Your task to perform on an android device: Search for pizza restaurants on Maps Image 0: 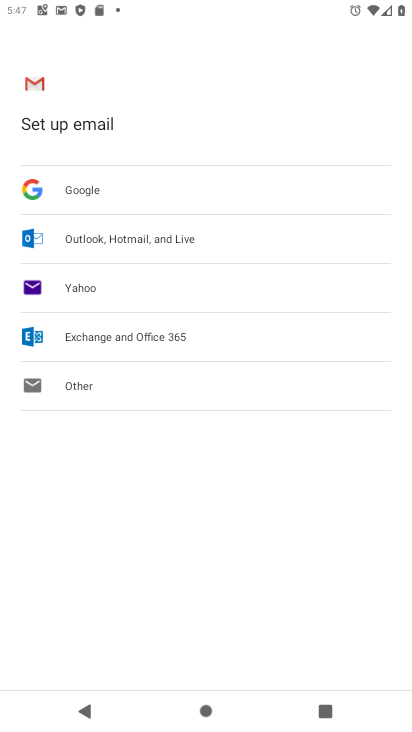
Step 0: press home button
Your task to perform on an android device: Search for pizza restaurants on Maps Image 1: 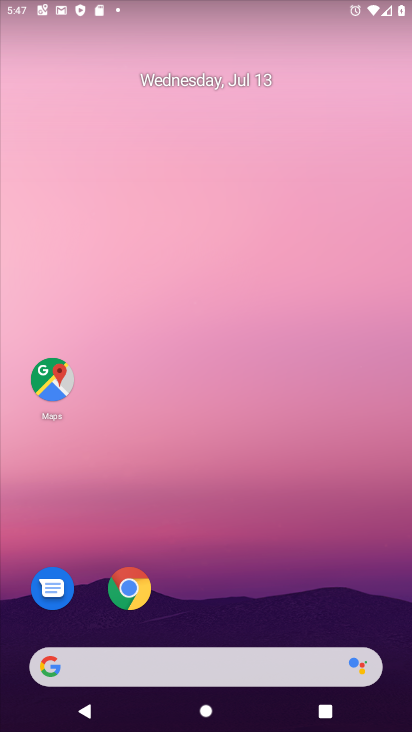
Step 1: drag from (240, 237) to (270, 66)
Your task to perform on an android device: Search for pizza restaurants on Maps Image 2: 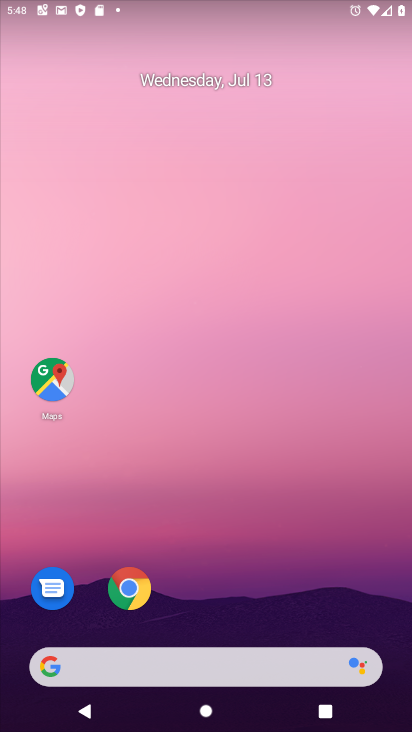
Step 2: drag from (191, 447) to (220, 83)
Your task to perform on an android device: Search for pizza restaurants on Maps Image 3: 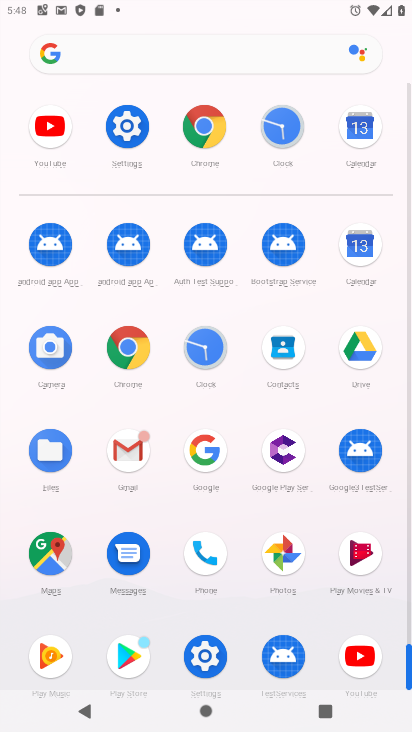
Step 3: click (49, 550)
Your task to perform on an android device: Search for pizza restaurants on Maps Image 4: 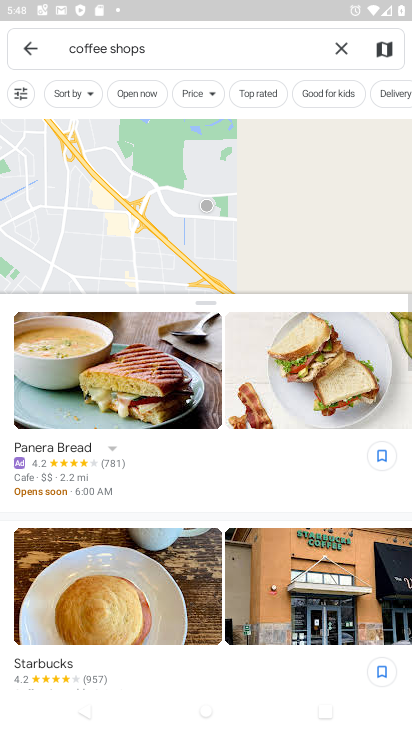
Step 4: click (344, 44)
Your task to perform on an android device: Search for pizza restaurants on Maps Image 5: 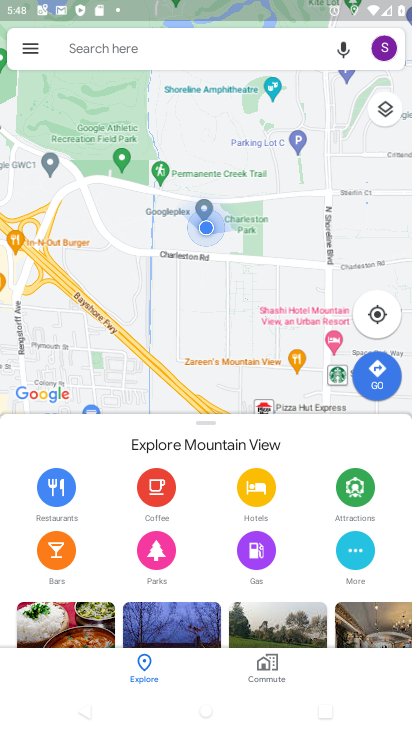
Step 5: click (239, 53)
Your task to perform on an android device: Search for pizza restaurants on Maps Image 6: 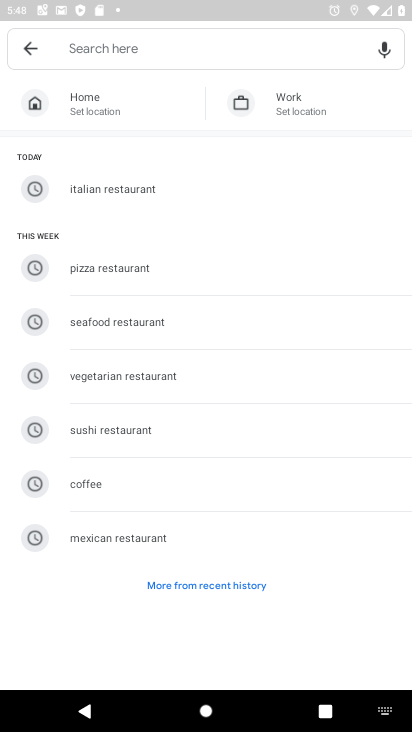
Step 6: click (121, 262)
Your task to perform on an android device: Search for pizza restaurants on Maps Image 7: 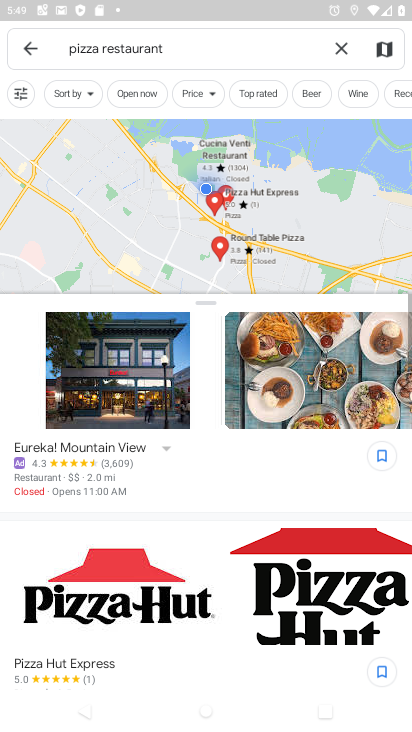
Step 7: task complete